Your task to perform on an android device: turn notification dots on Image 0: 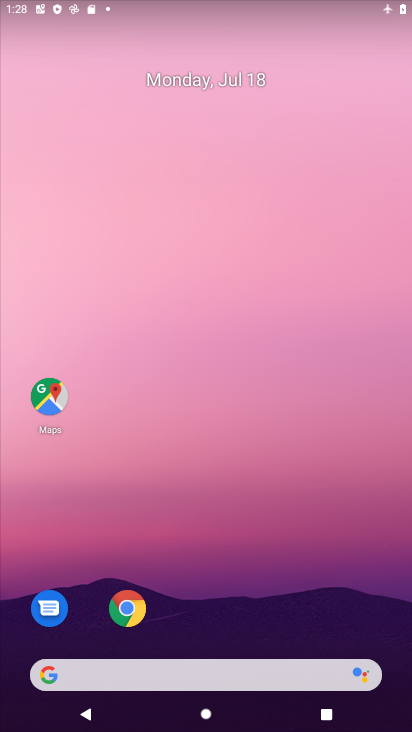
Step 0: drag from (376, 614) to (301, 57)
Your task to perform on an android device: turn notification dots on Image 1: 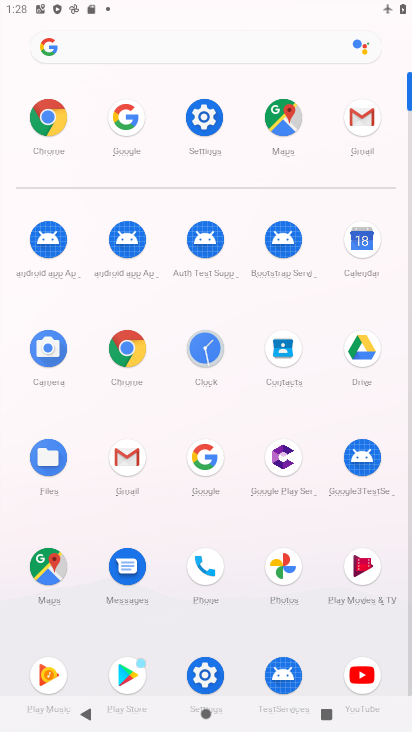
Step 1: click (203, 667)
Your task to perform on an android device: turn notification dots on Image 2: 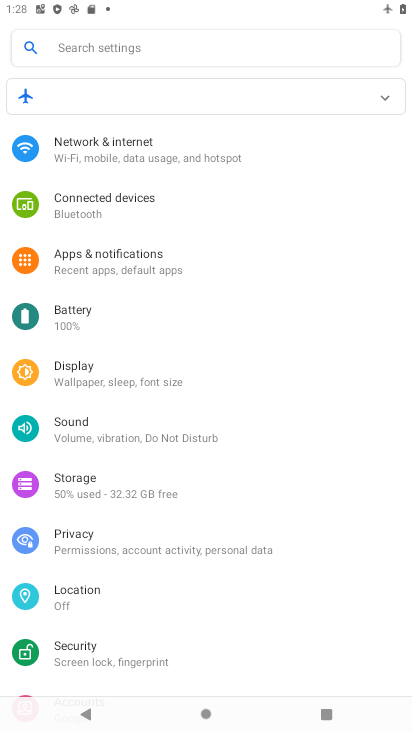
Step 2: click (163, 274)
Your task to perform on an android device: turn notification dots on Image 3: 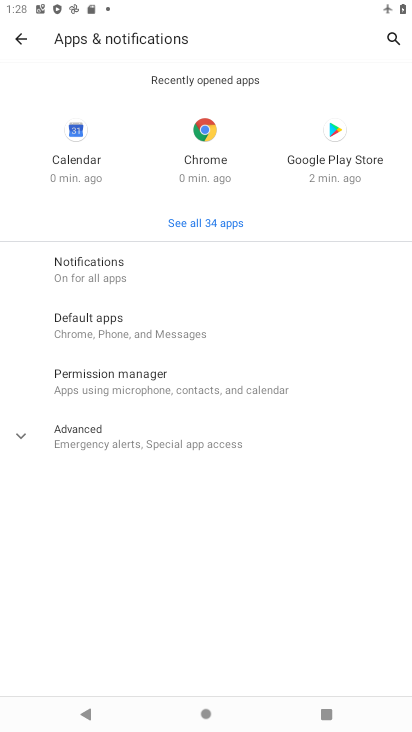
Step 3: click (104, 442)
Your task to perform on an android device: turn notification dots on Image 4: 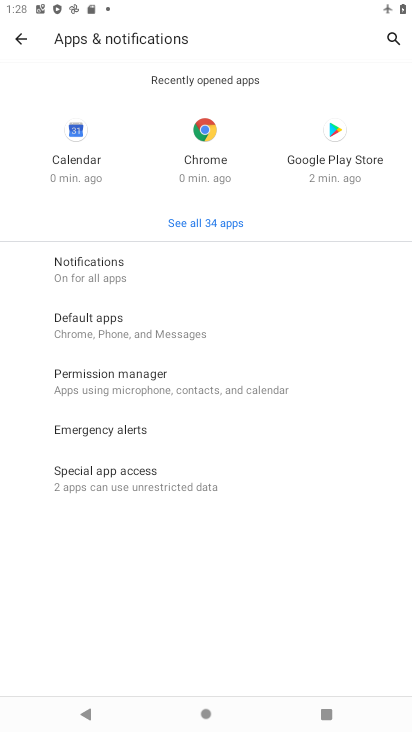
Step 4: click (132, 287)
Your task to perform on an android device: turn notification dots on Image 5: 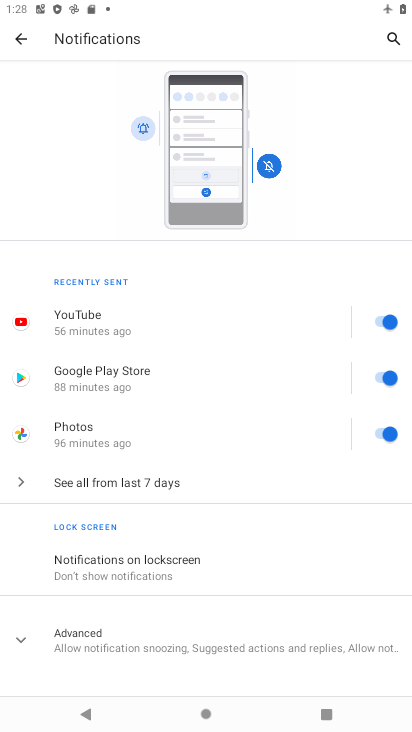
Step 5: click (139, 628)
Your task to perform on an android device: turn notification dots on Image 6: 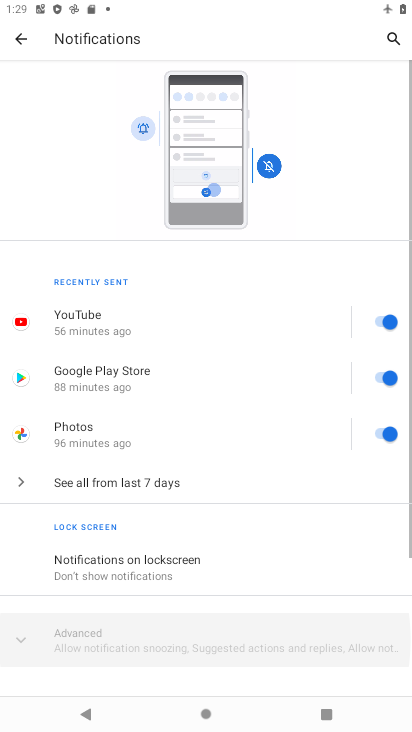
Step 6: task complete